Your task to perform on an android device: Open Google Maps Image 0: 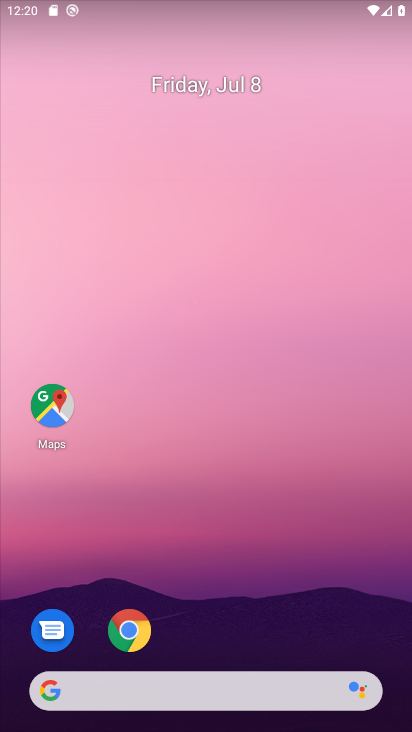
Step 0: drag from (288, 539) to (250, 374)
Your task to perform on an android device: Open Google Maps Image 1: 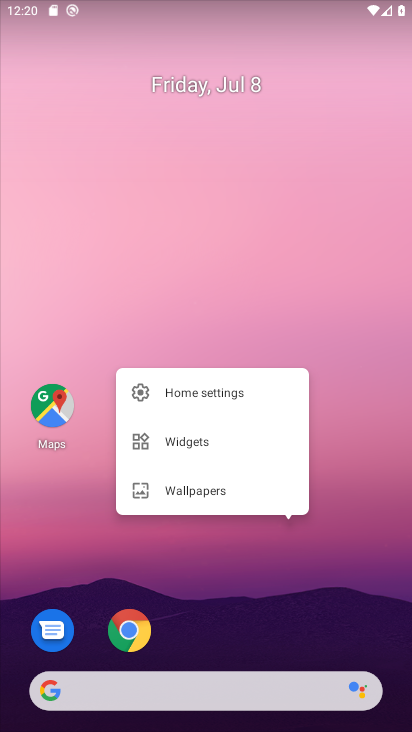
Step 1: click (47, 386)
Your task to perform on an android device: Open Google Maps Image 2: 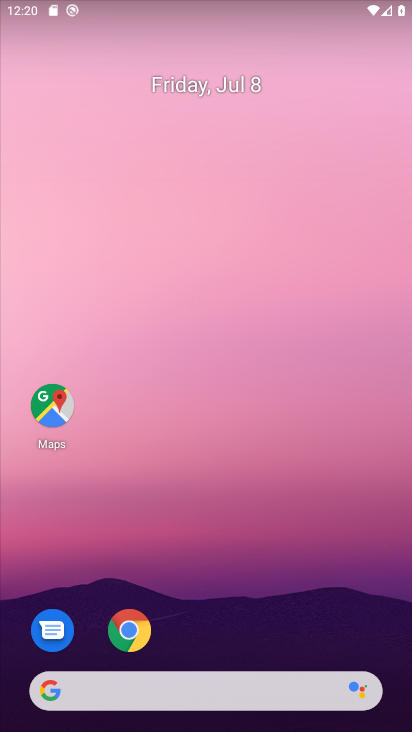
Step 2: click (57, 425)
Your task to perform on an android device: Open Google Maps Image 3: 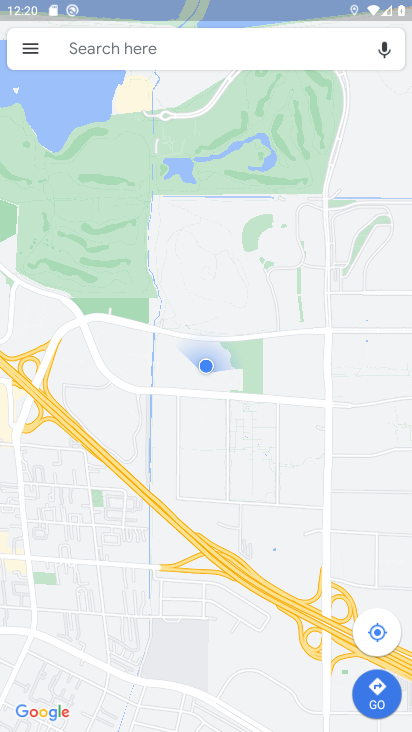
Step 3: task complete